Your task to perform on an android device: Go to settings Image 0: 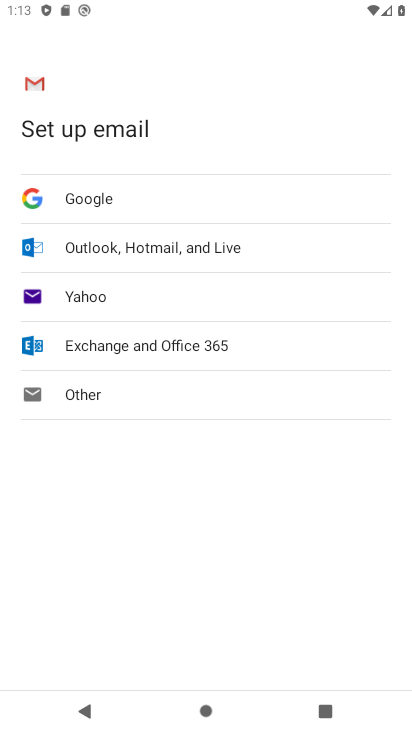
Step 0: press home button
Your task to perform on an android device: Go to settings Image 1: 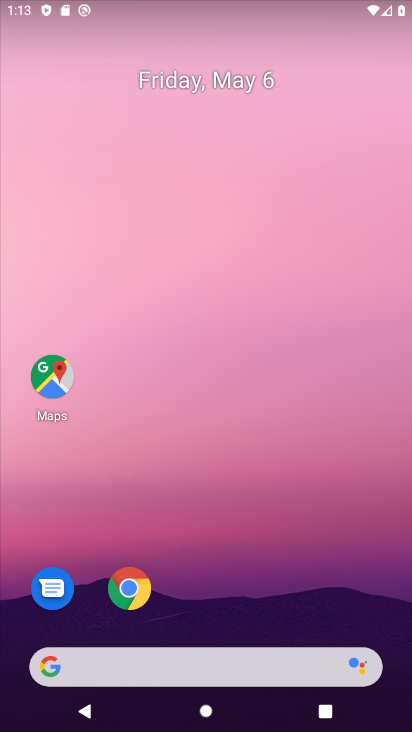
Step 1: drag from (373, 580) to (328, 72)
Your task to perform on an android device: Go to settings Image 2: 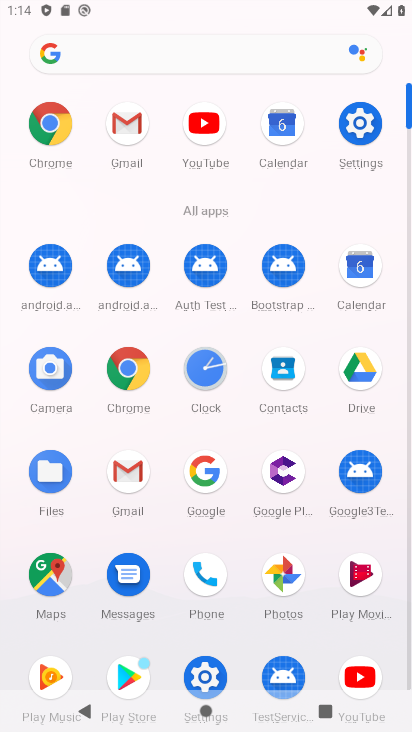
Step 2: click (215, 668)
Your task to perform on an android device: Go to settings Image 3: 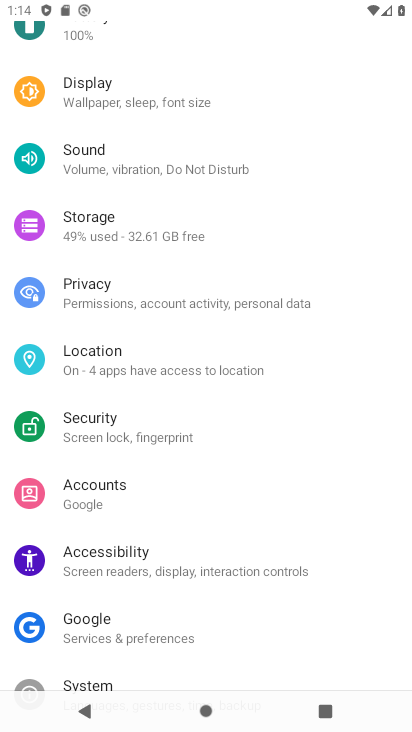
Step 3: task complete